Your task to perform on an android device: add a label to a message in the gmail app Image 0: 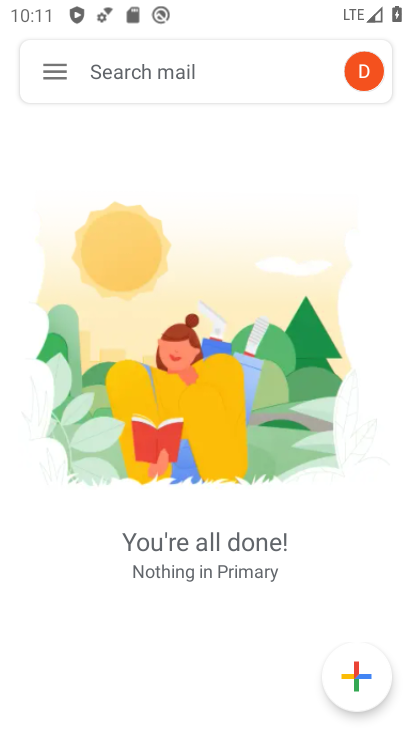
Step 0: press home button
Your task to perform on an android device: add a label to a message in the gmail app Image 1: 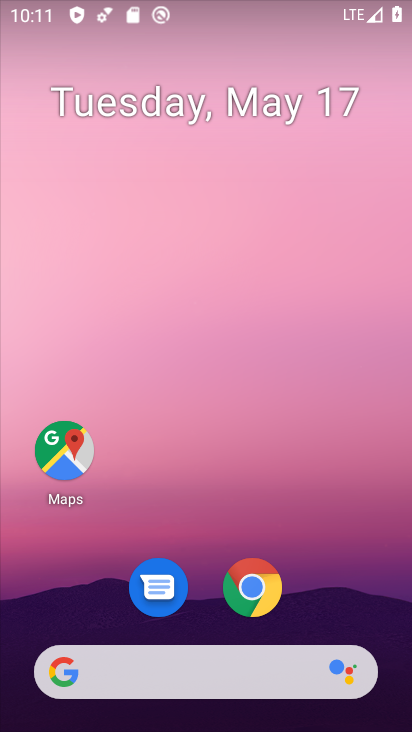
Step 1: drag from (400, 624) to (326, 97)
Your task to perform on an android device: add a label to a message in the gmail app Image 2: 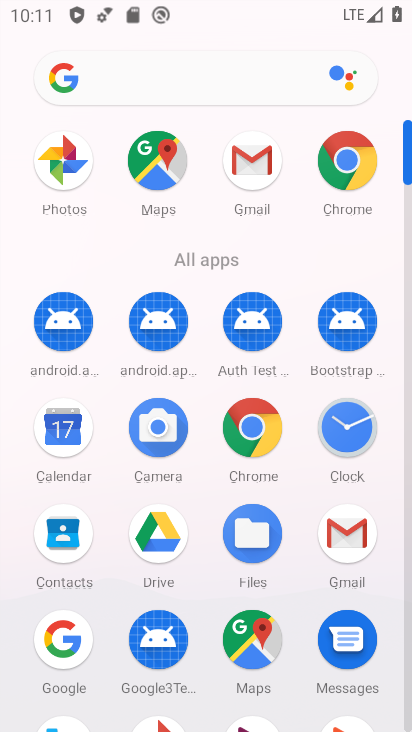
Step 2: click (246, 173)
Your task to perform on an android device: add a label to a message in the gmail app Image 3: 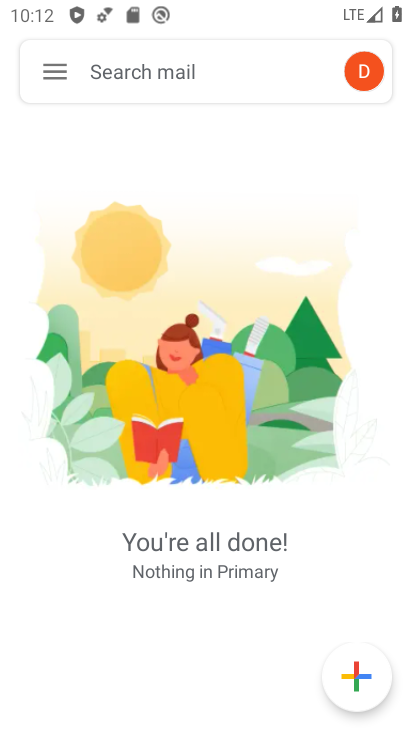
Step 3: task complete